Your task to perform on an android device: toggle improve location accuracy Image 0: 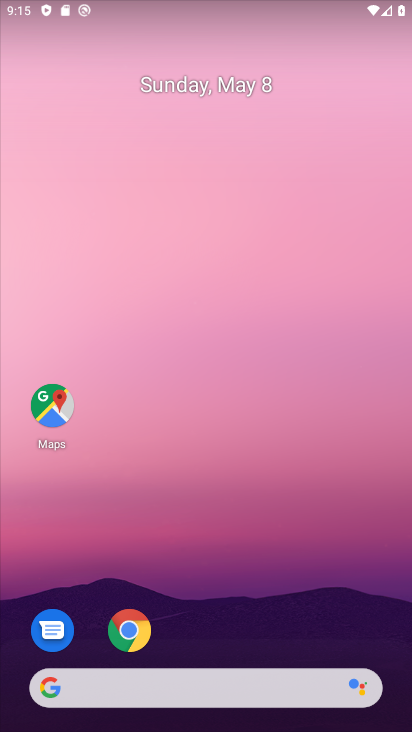
Step 0: drag from (248, 665) to (298, 174)
Your task to perform on an android device: toggle improve location accuracy Image 1: 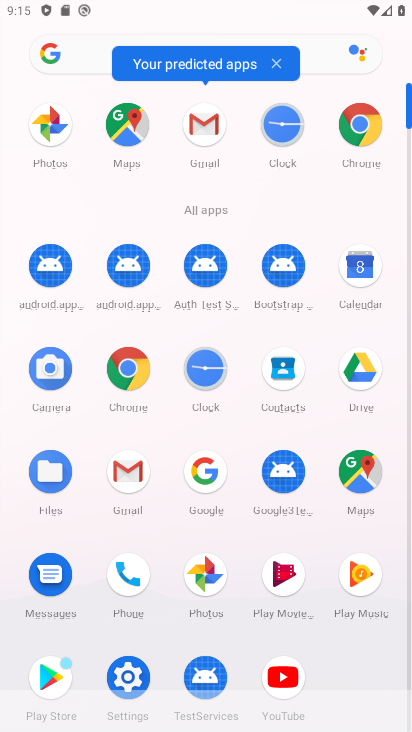
Step 1: click (118, 673)
Your task to perform on an android device: toggle improve location accuracy Image 2: 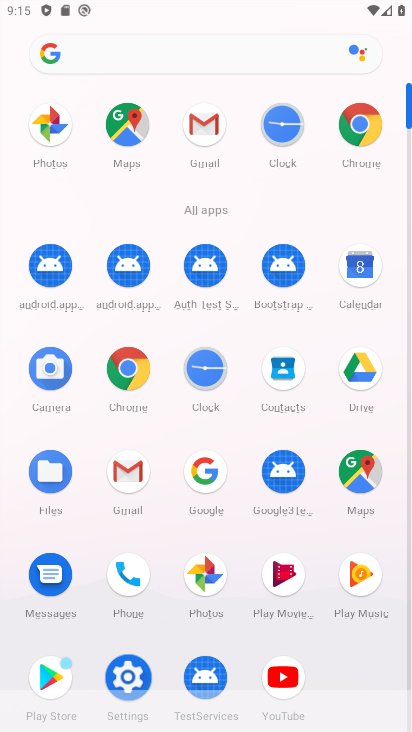
Step 2: click (118, 673)
Your task to perform on an android device: toggle improve location accuracy Image 3: 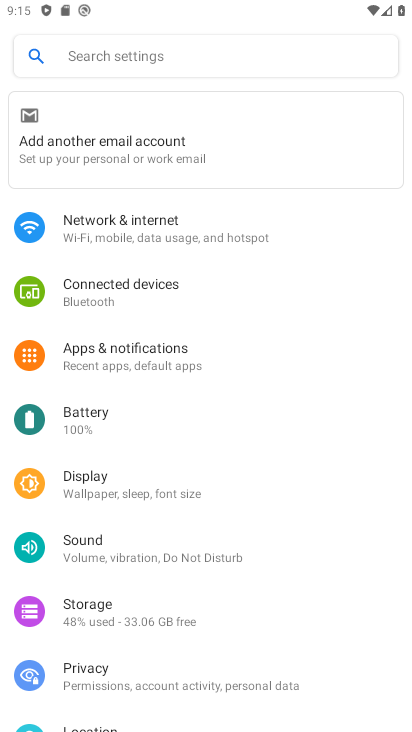
Step 3: drag from (167, 653) to (274, 295)
Your task to perform on an android device: toggle improve location accuracy Image 4: 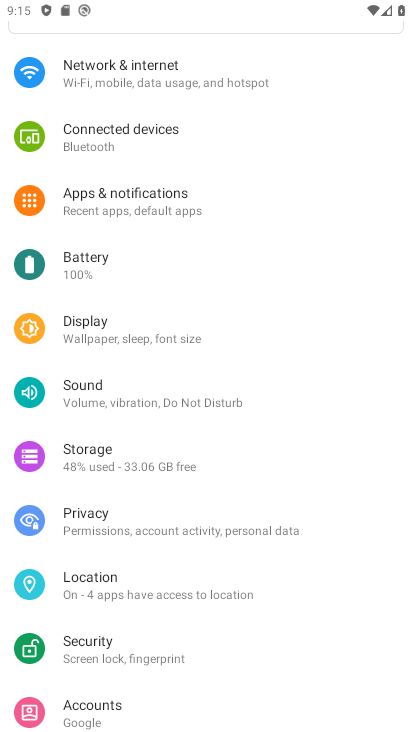
Step 4: click (161, 587)
Your task to perform on an android device: toggle improve location accuracy Image 5: 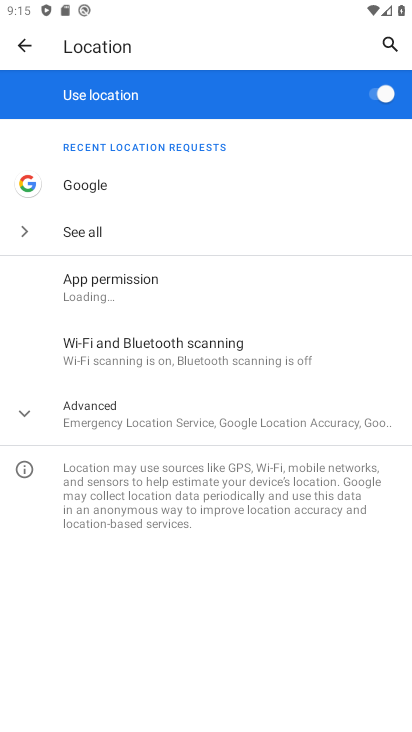
Step 5: click (206, 416)
Your task to perform on an android device: toggle improve location accuracy Image 6: 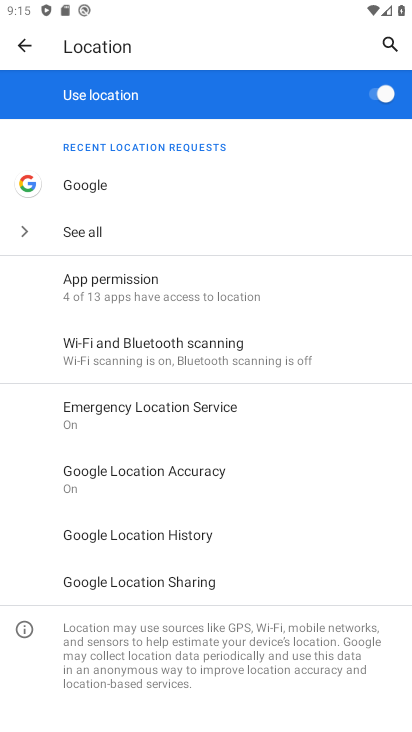
Step 6: click (188, 496)
Your task to perform on an android device: toggle improve location accuracy Image 7: 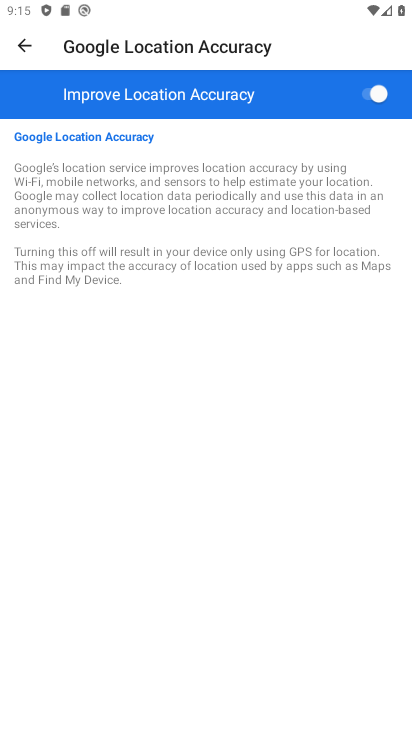
Step 7: click (368, 90)
Your task to perform on an android device: toggle improve location accuracy Image 8: 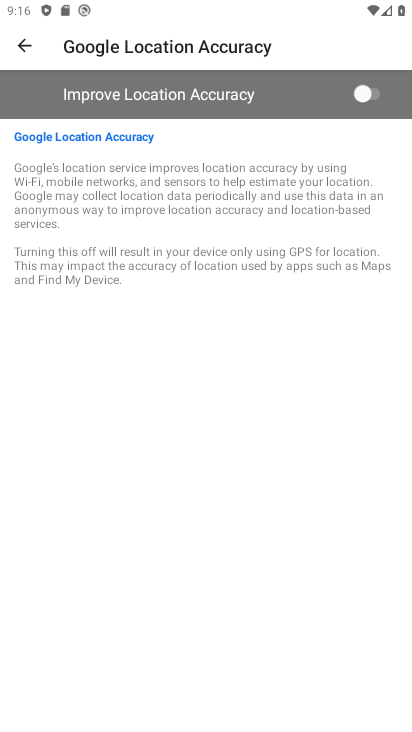
Step 8: task complete